Your task to perform on an android device: What's the weather today? Image 0: 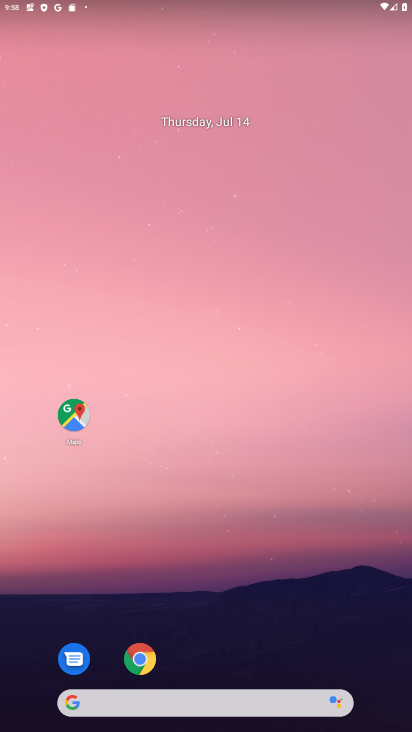
Step 0: drag from (349, 648) to (298, 158)
Your task to perform on an android device: What's the weather today? Image 1: 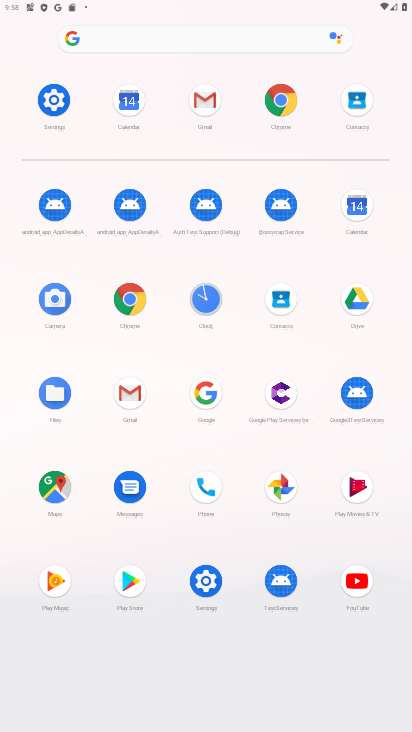
Step 1: click (284, 100)
Your task to perform on an android device: What's the weather today? Image 2: 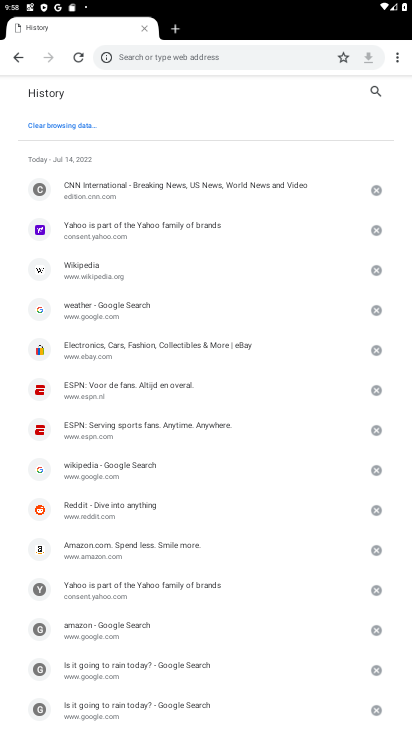
Step 2: click (280, 56)
Your task to perform on an android device: What's the weather today? Image 3: 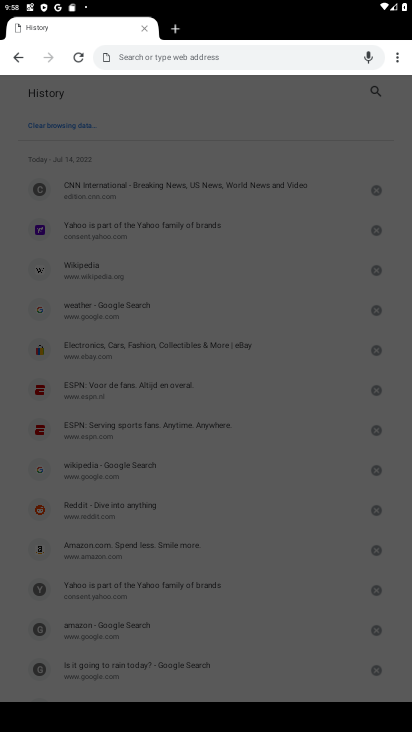
Step 3: type "weather"
Your task to perform on an android device: What's the weather today? Image 4: 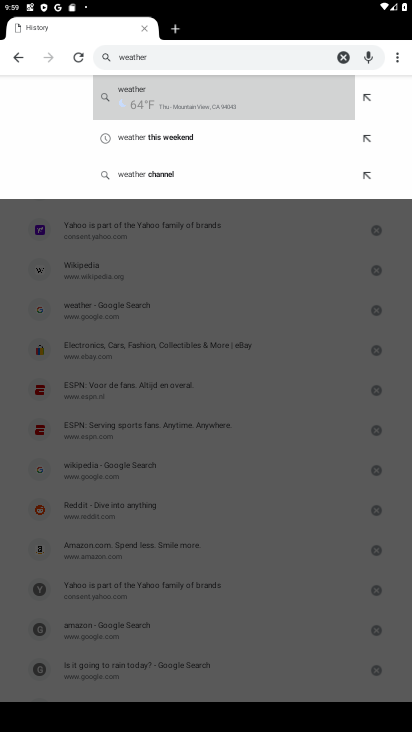
Step 4: click (185, 95)
Your task to perform on an android device: What's the weather today? Image 5: 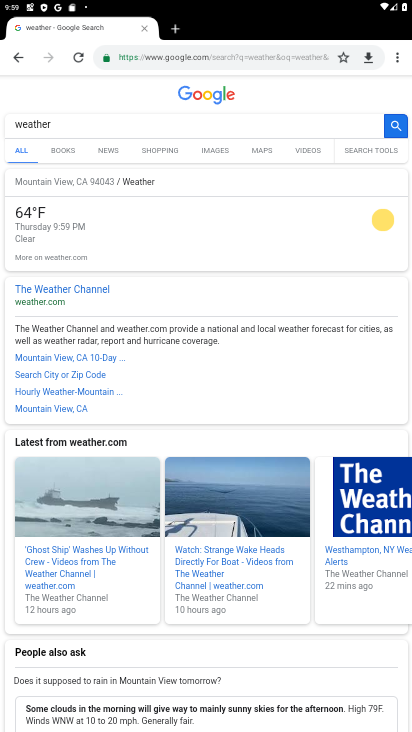
Step 5: task complete